Your task to perform on an android device: toggle improve location accuracy Image 0: 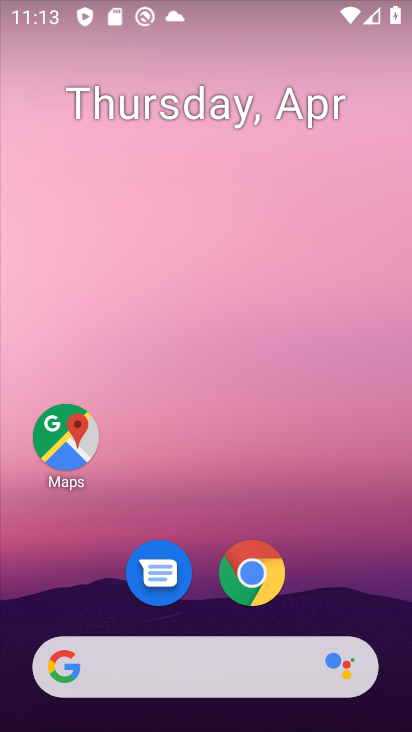
Step 0: drag from (318, 513) to (288, 58)
Your task to perform on an android device: toggle improve location accuracy Image 1: 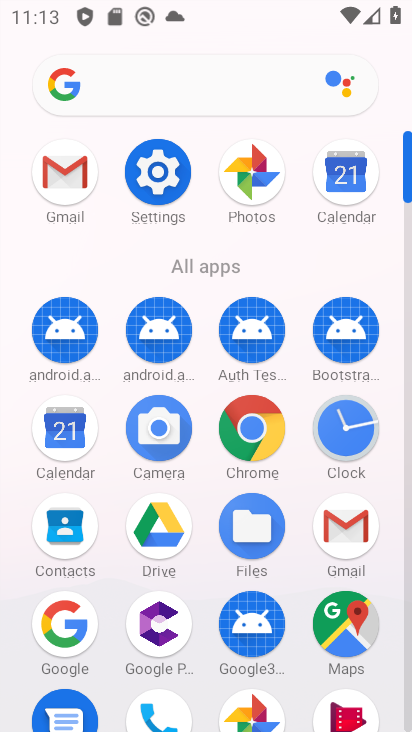
Step 1: click (163, 175)
Your task to perform on an android device: toggle improve location accuracy Image 2: 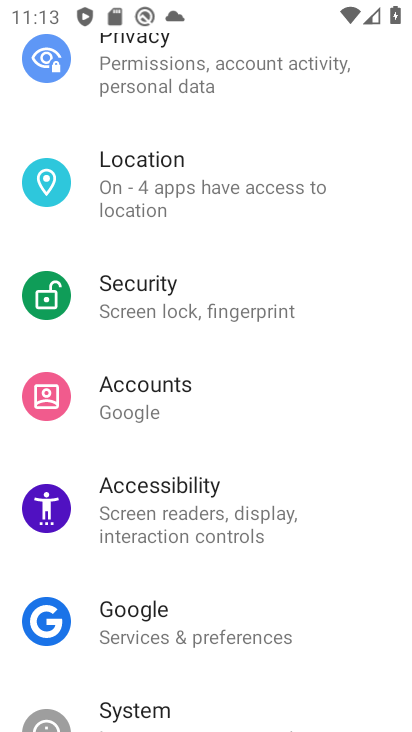
Step 2: click (166, 167)
Your task to perform on an android device: toggle improve location accuracy Image 3: 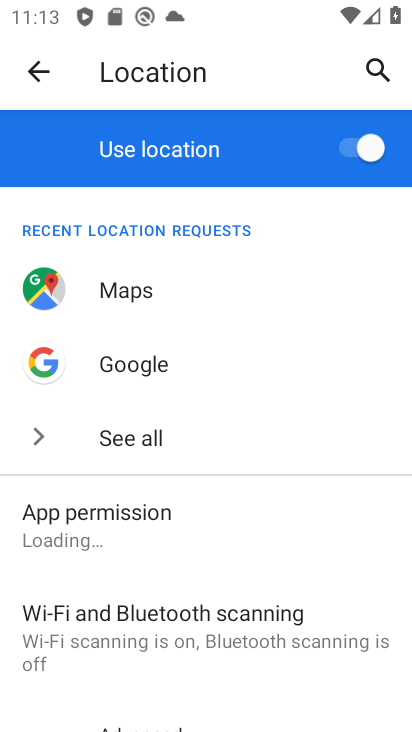
Step 3: drag from (264, 579) to (253, 204)
Your task to perform on an android device: toggle improve location accuracy Image 4: 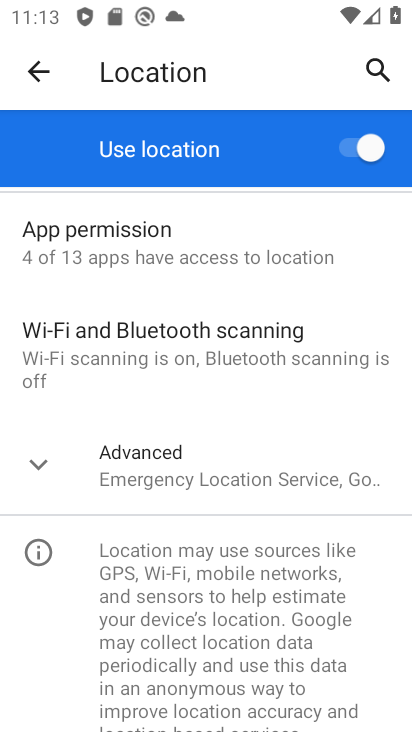
Step 4: click (236, 487)
Your task to perform on an android device: toggle improve location accuracy Image 5: 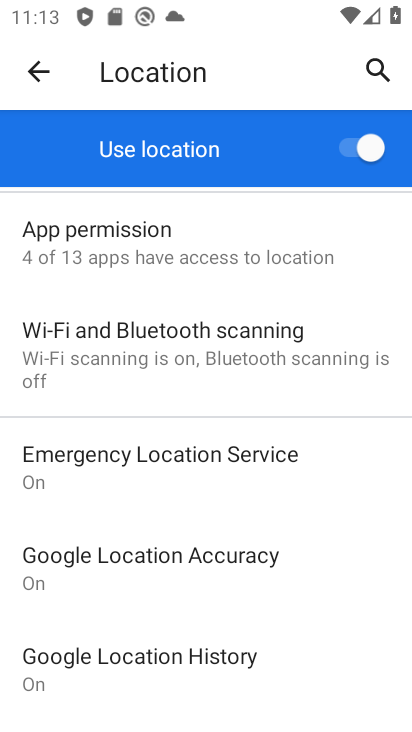
Step 5: click (226, 568)
Your task to perform on an android device: toggle improve location accuracy Image 6: 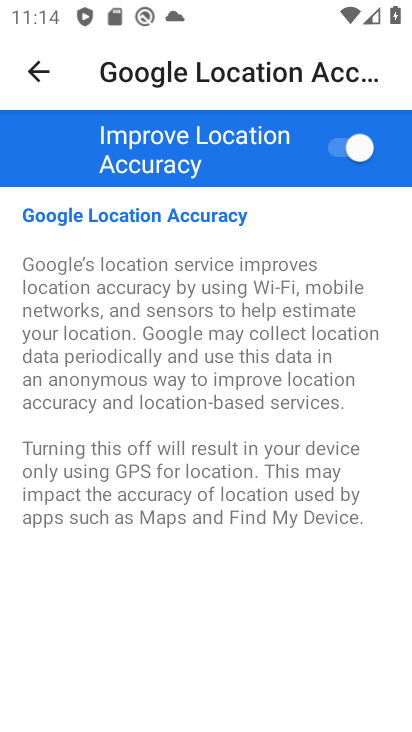
Step 6: click (340, 141)
Your task to perform on an android device: toggle improve location accuracy Image 7: 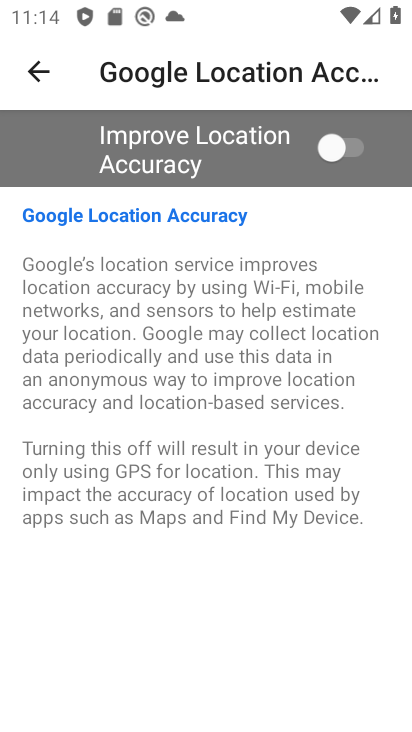
Step 7: task complete